Your task to perform on an android device: Go to Yahoo.com Image 0: 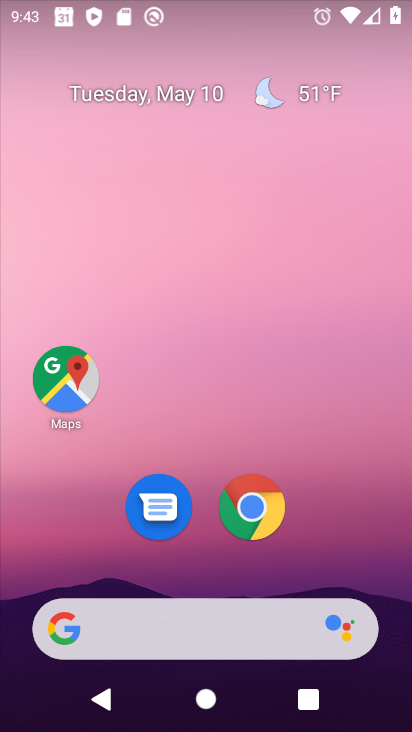
Step 0: click (255, 518)
Your task to perform on an android device: Go to Yahoo.com Image 1: 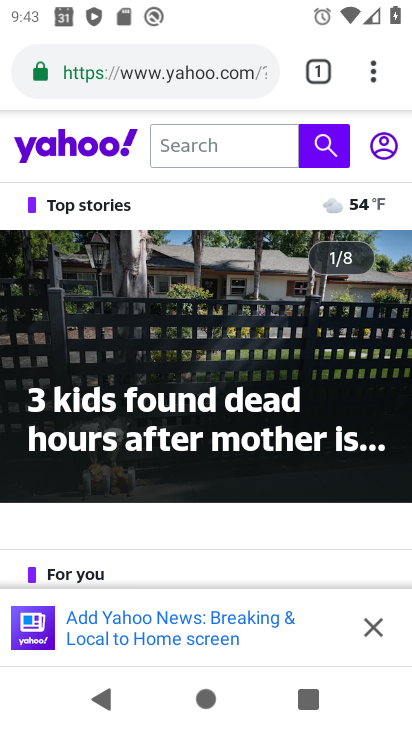
Step 1: task complete